Your task to perform on an android device: make emails show in primary in the gmail app Image 0: 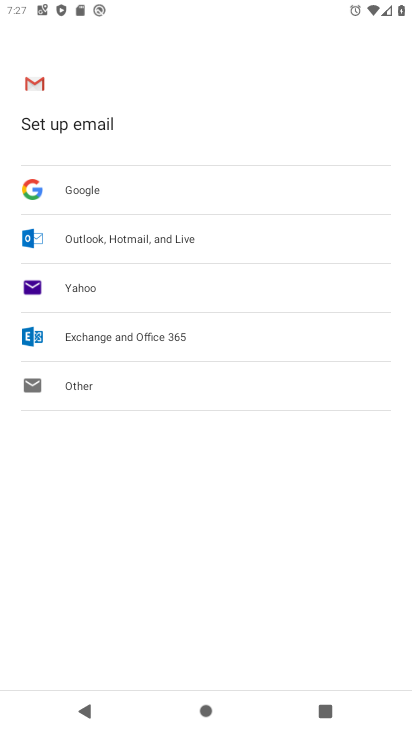
Step 0: press home button
Your task to perform on an android device: make emails show in primary in the gmail app Image 1: 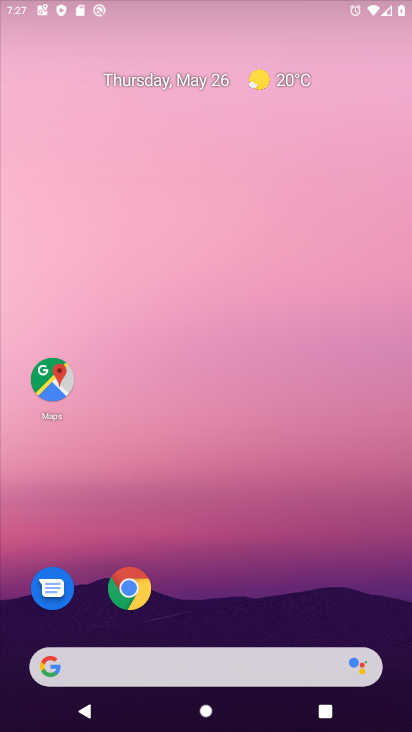
Step 1: drag from (334, 650) to (298, 7)
Your task to perform on an android device: make emails show in primary in the gmail app Image 2: 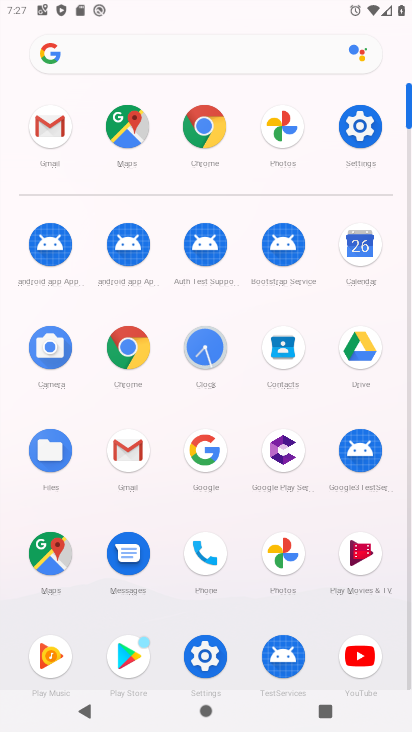
Step 2: click (135, 444)
Your task to perform on an android device: make emails show in primary in the gmail app Image 3: 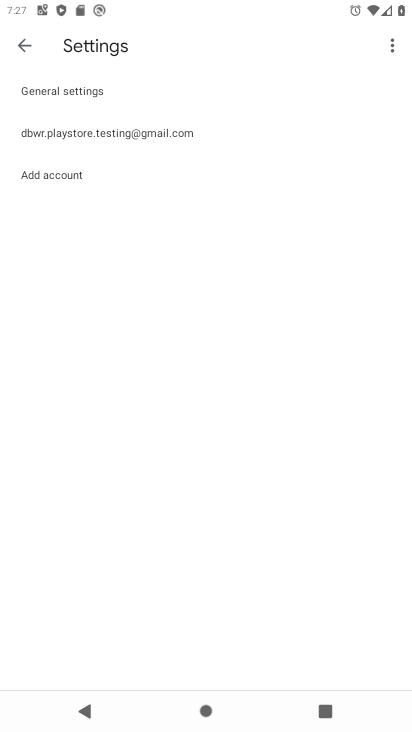
Step 3: task complete